Your task to perform on an android device: open app "PUBG MOBILE" (install if not already installed) Image 0: 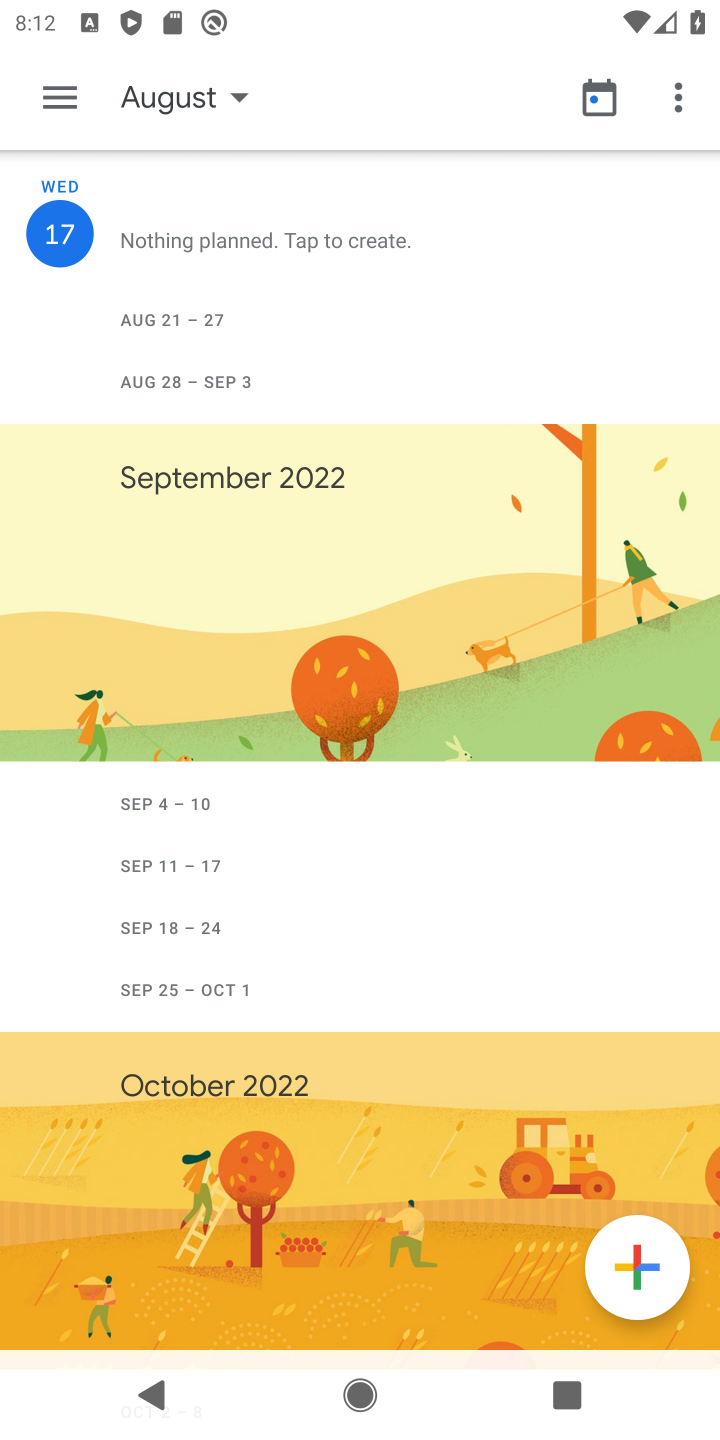
Step 0: press home button
Your task to perform on an android device: open app "PUBG MOBILE" (install if not already installed) Image 1: 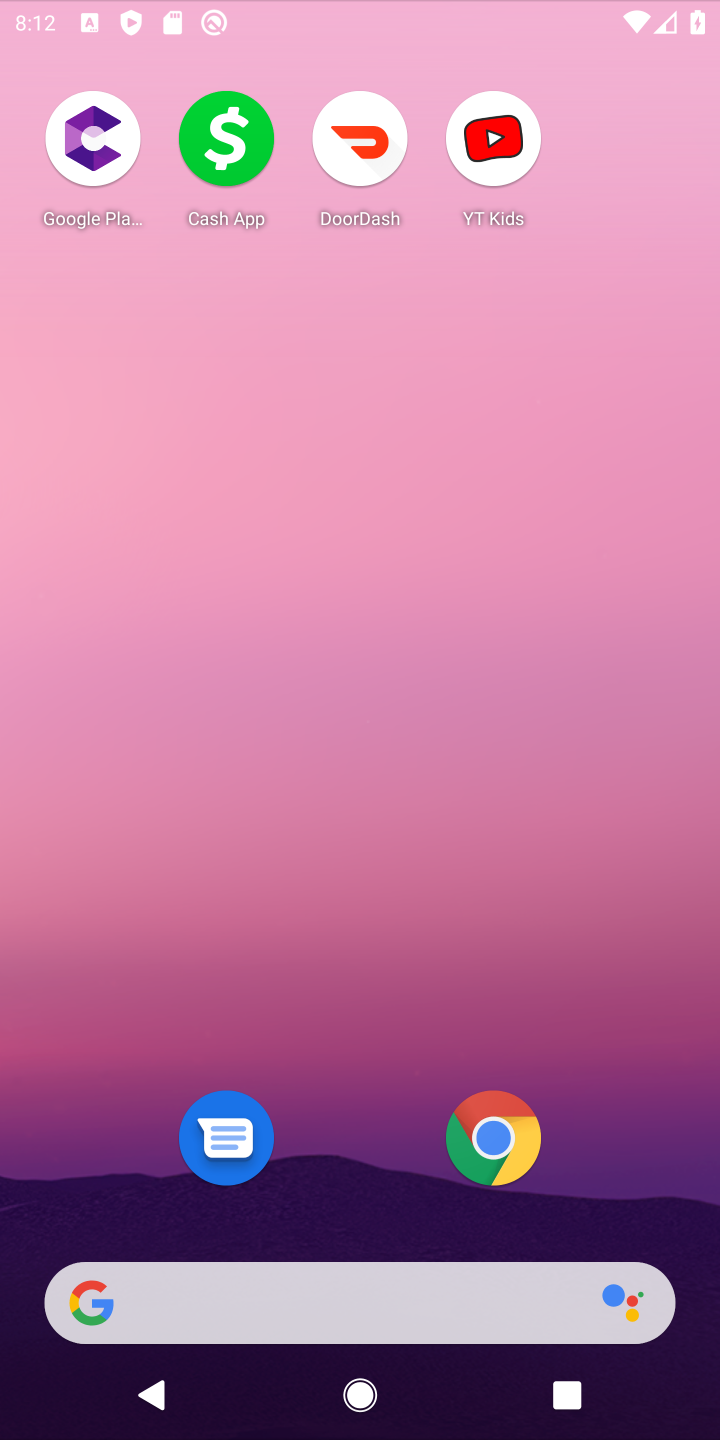
Step 1: press home button
Your task to perform on an android device: open app "PUBG MOBILE" (install if not already installed) Image 2: 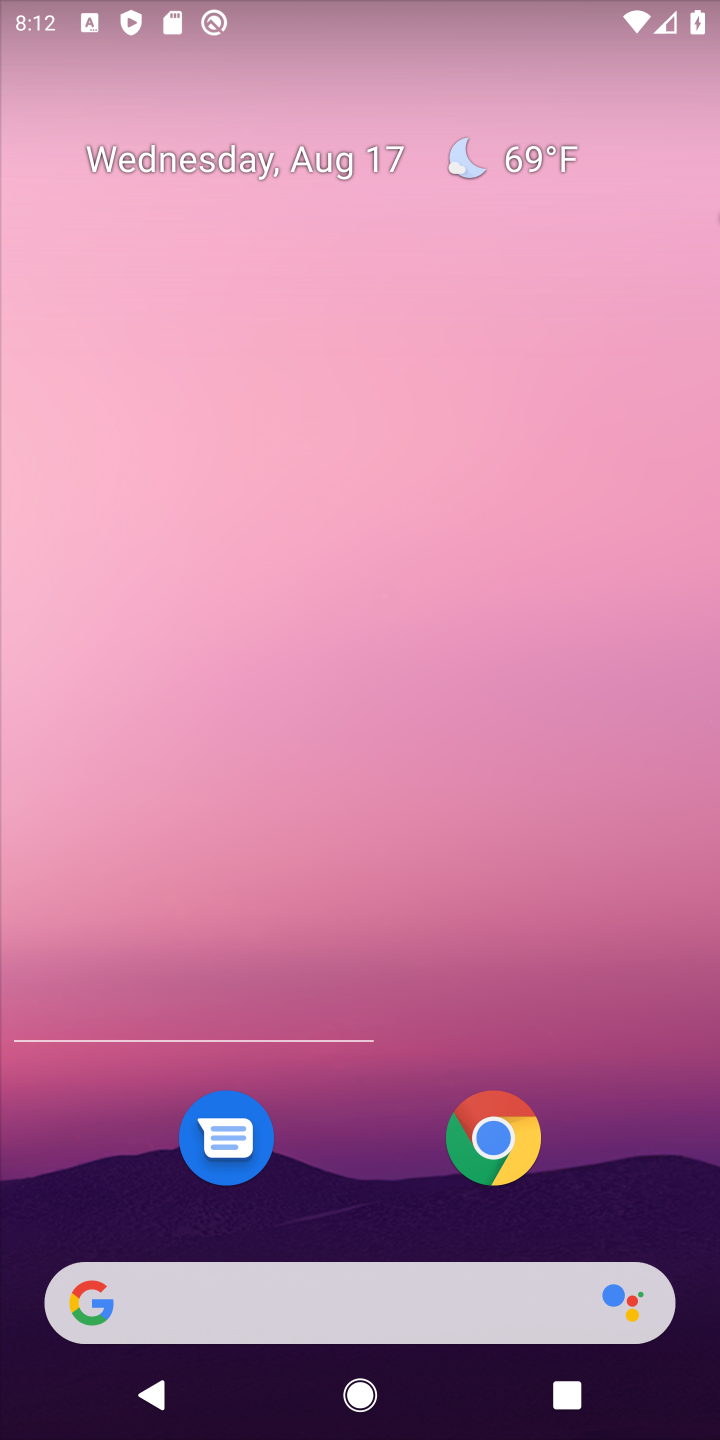
Step 2: click (327, 472)
Your task to perform on an android device: open app "PUBG MOBILE" (install if not already installed) Image 3: 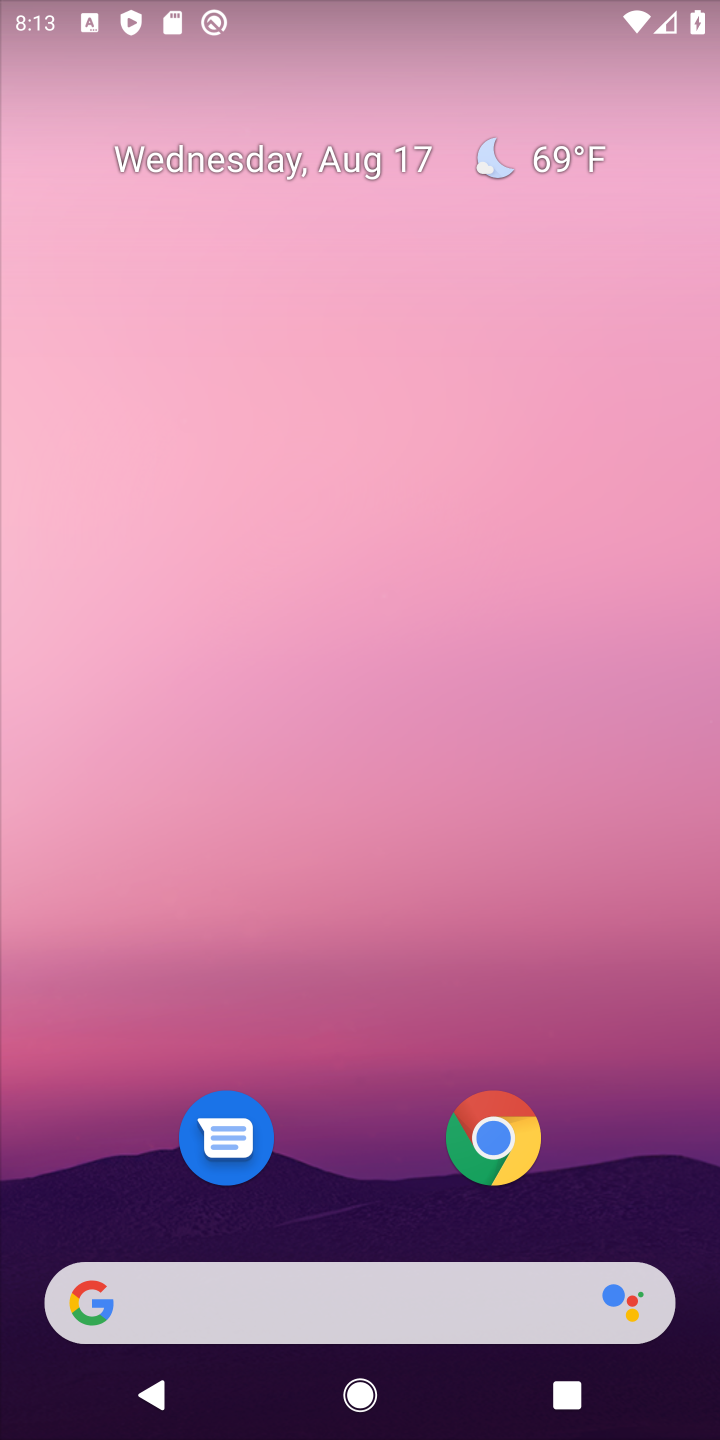
Step 3: drag from (330, 1187) to (383, 497)
Your task to perform on an android device: open app "PUBG MOBILE" (install if not already installed) Image 4: 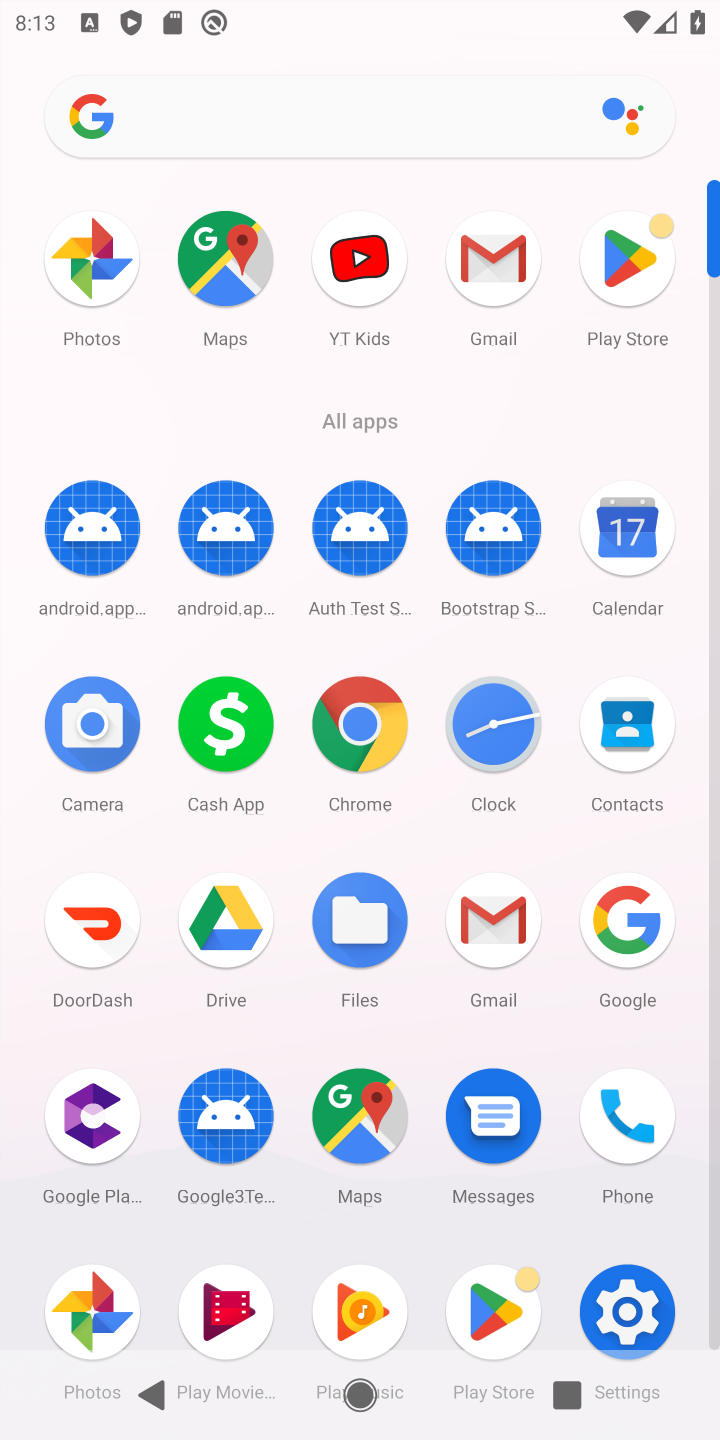
Step 4: click (651, 257)
Your task to perform on an android device: open app "PUBG MOBILE" (install if not already installed) Image 5: 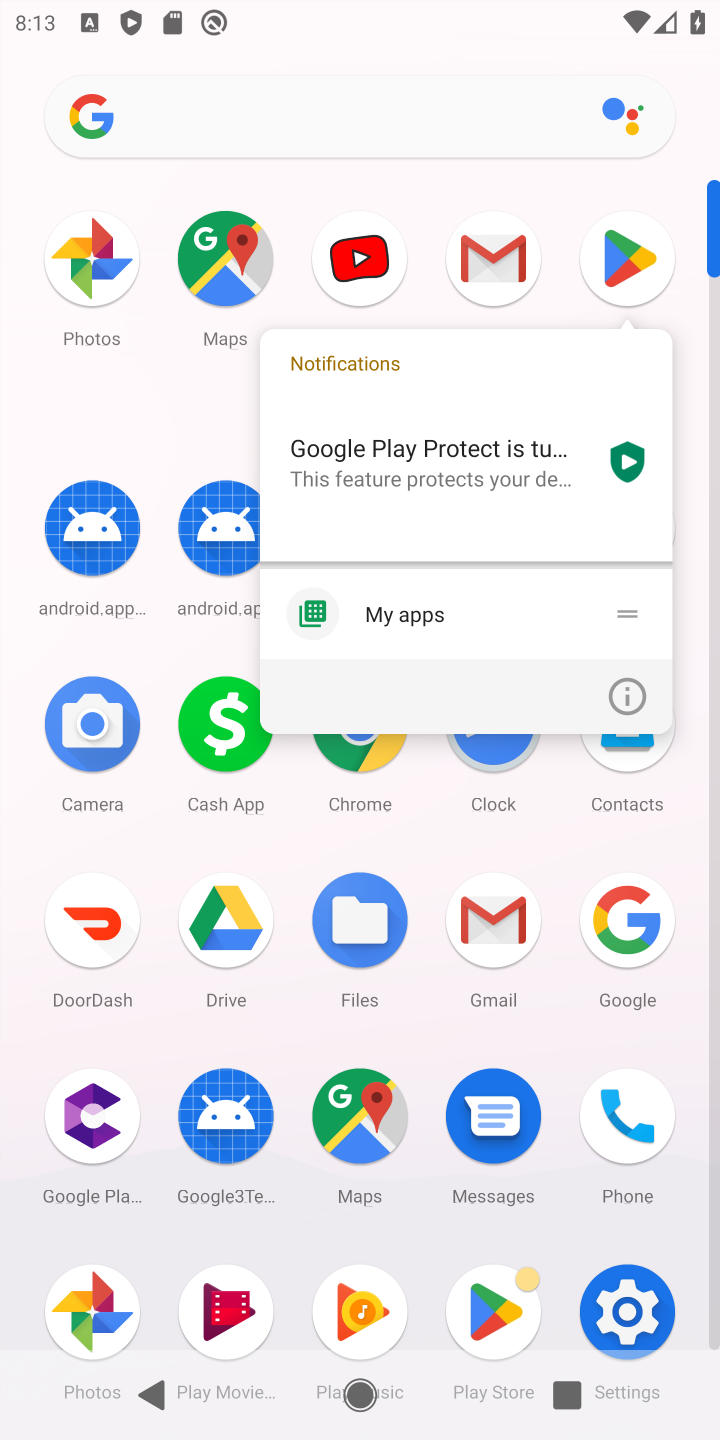
Step 5: click (595, 261)
Your task to perform on an android device: open app "PUBG MOBILE" (install if not already installed) Image 6: 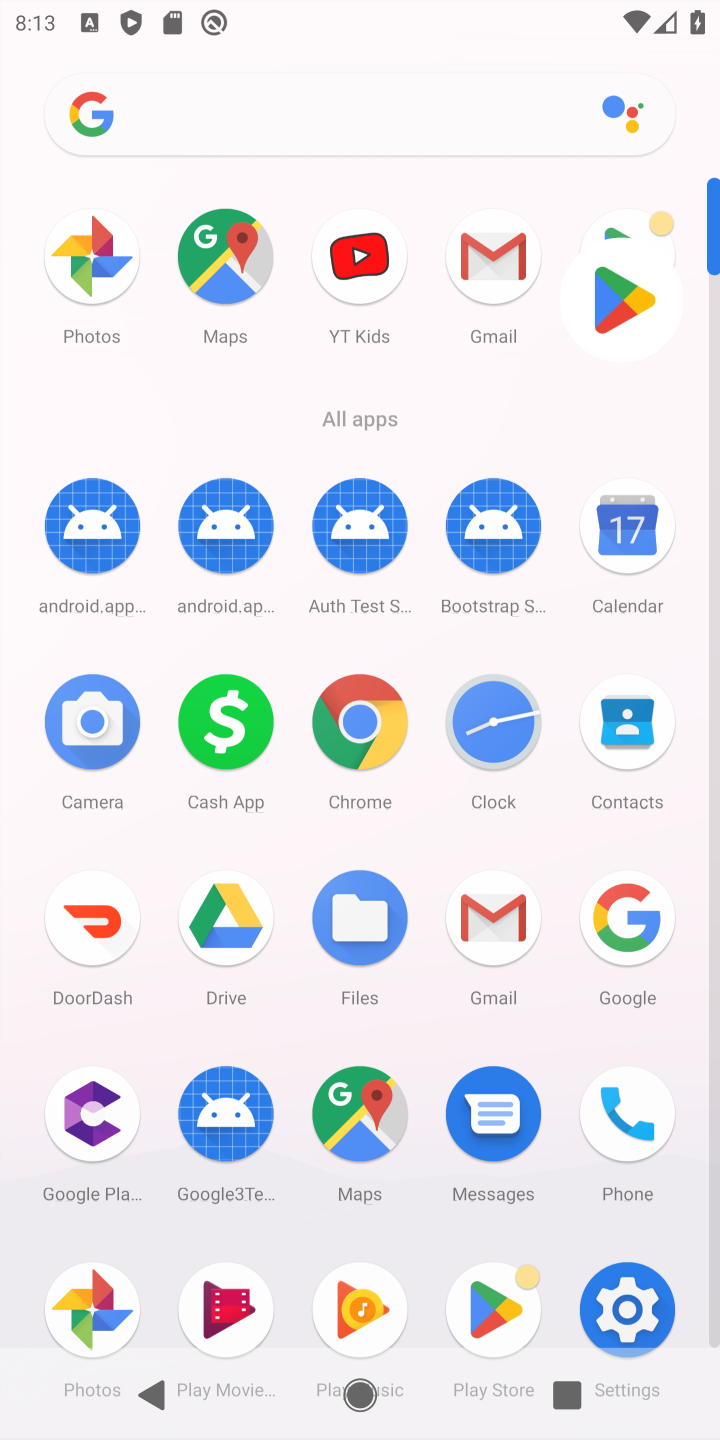
Step 6: click (595, 261)
Your task to perform on an android device: open app "PUBG MOBILE" (install if not already installed) Image 7: 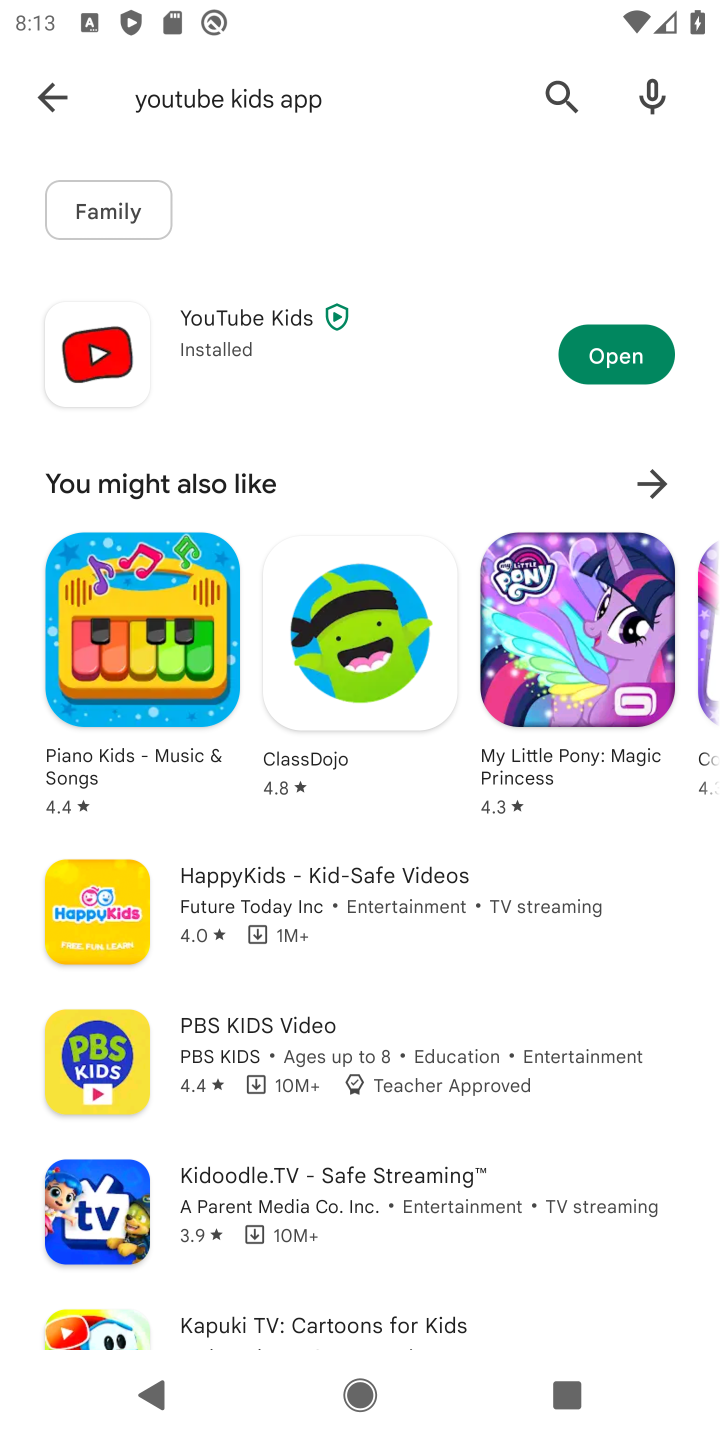
Step 7: click (25, 96)
Your task to perform on an android device: open app "PUBG MOBILE" (install if not already installed) Image 8: 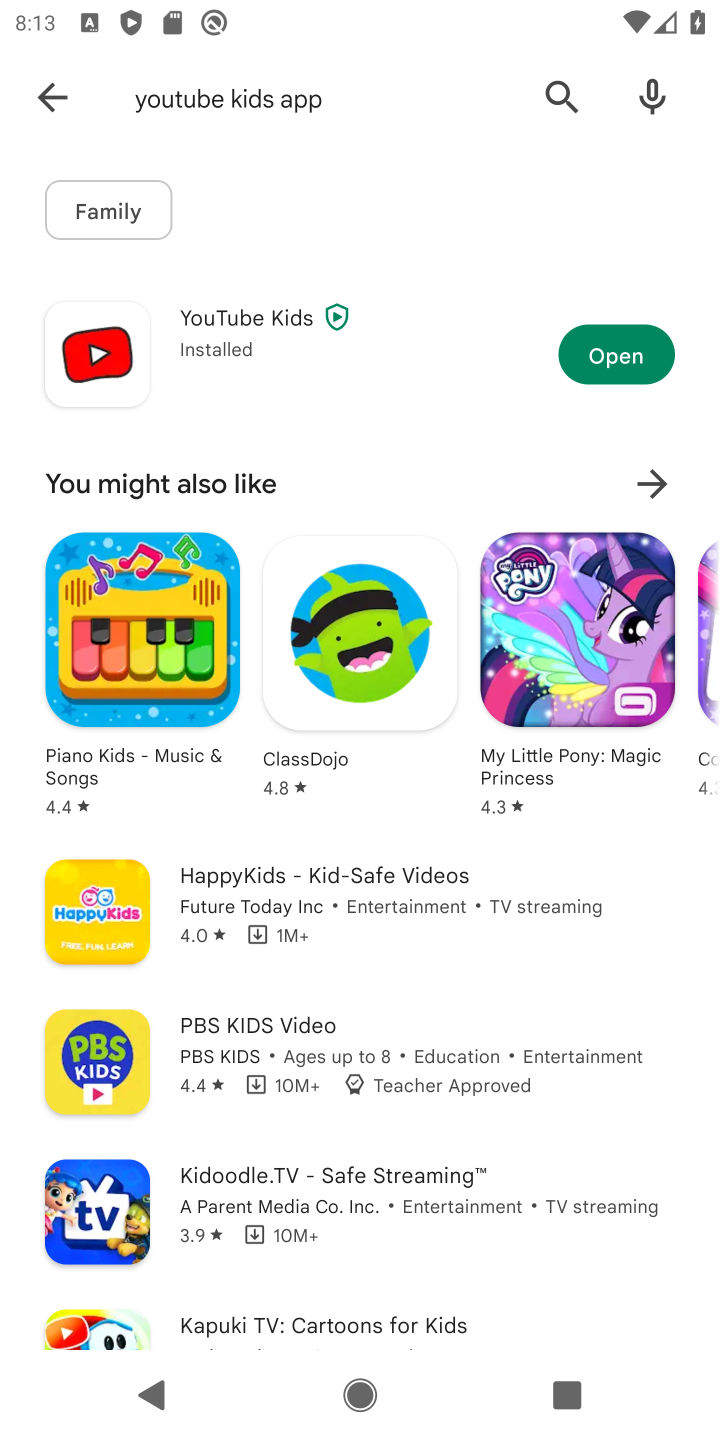
Step 8: click (65, 100)
Your task to perform on an android device: open app "PUBG MOBILE" (install if not already installed) Image 9: 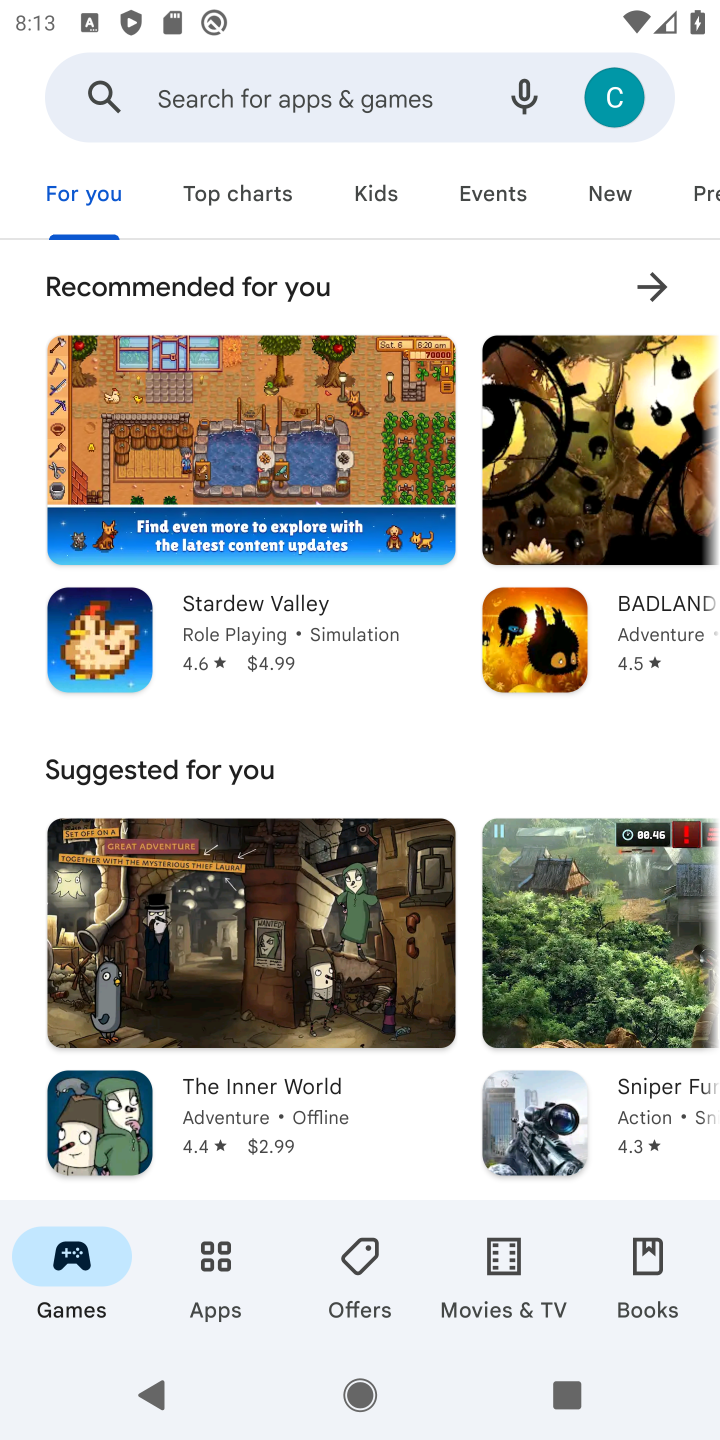
Step 9: click (290, 90)
Your task to perform on an android device: open app "PUBG MOBILE" (install if not already installed) Image 10: 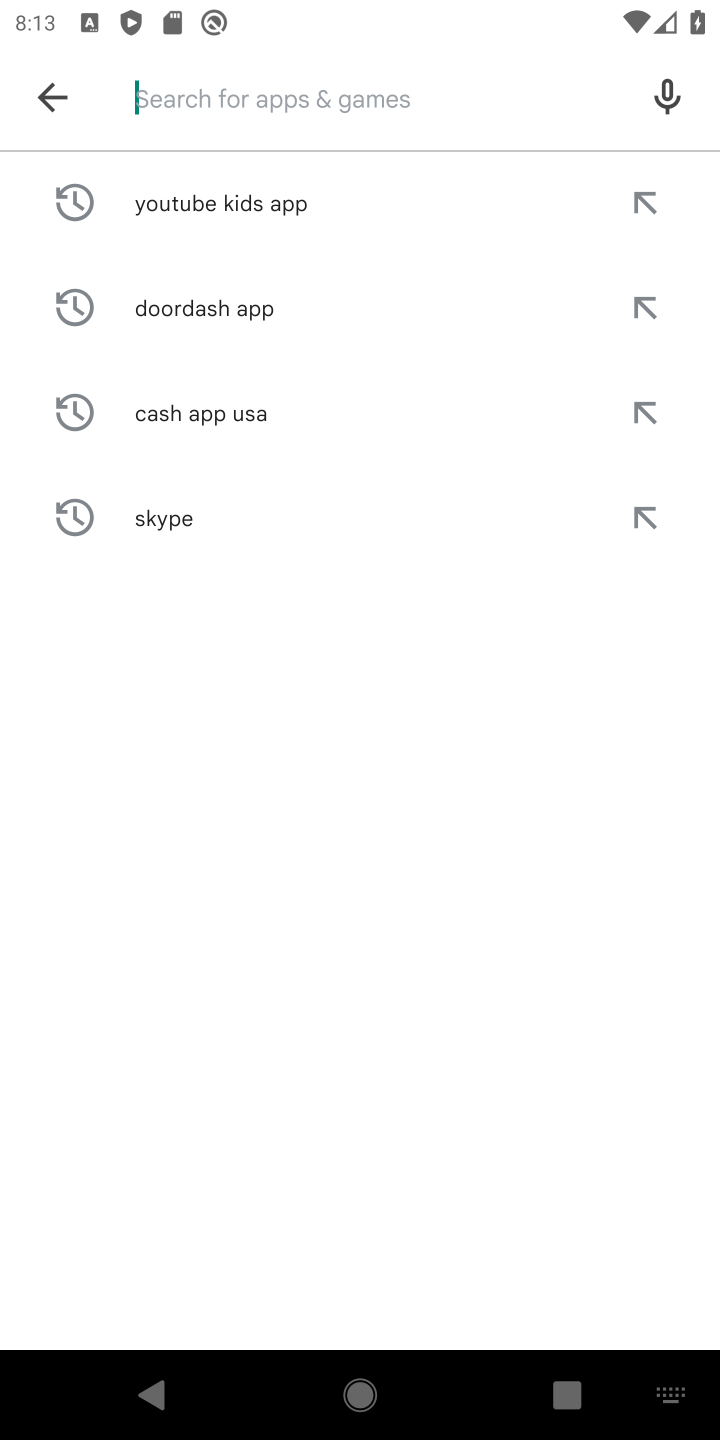
Step 10: type "PUBG MOBILE "
Your task to perform on an android device: open app "PUBG MOBILE" (install if not already installed) Image 11: 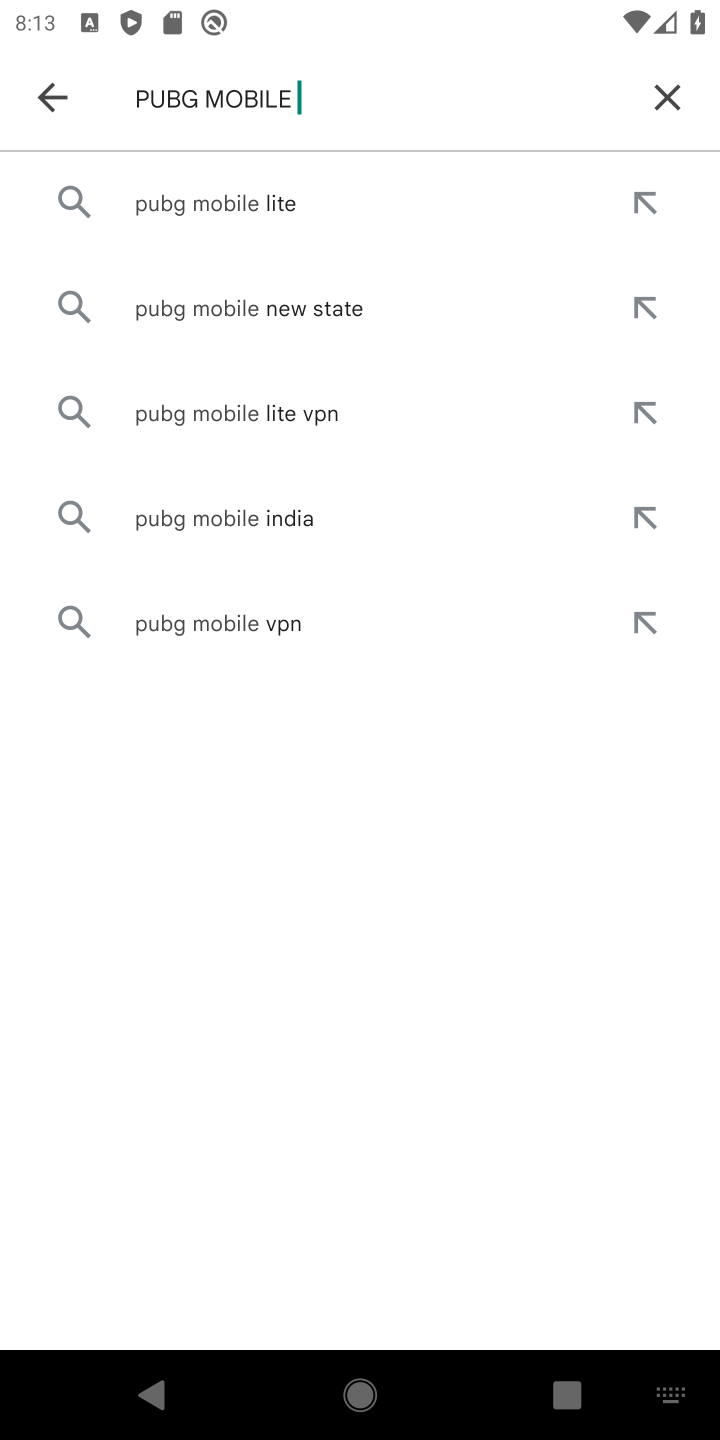
Step 11: click (236, 211)
Your task to perform on an android device: open app "PUBG MOBILE" (install if not already installed) Image 12: 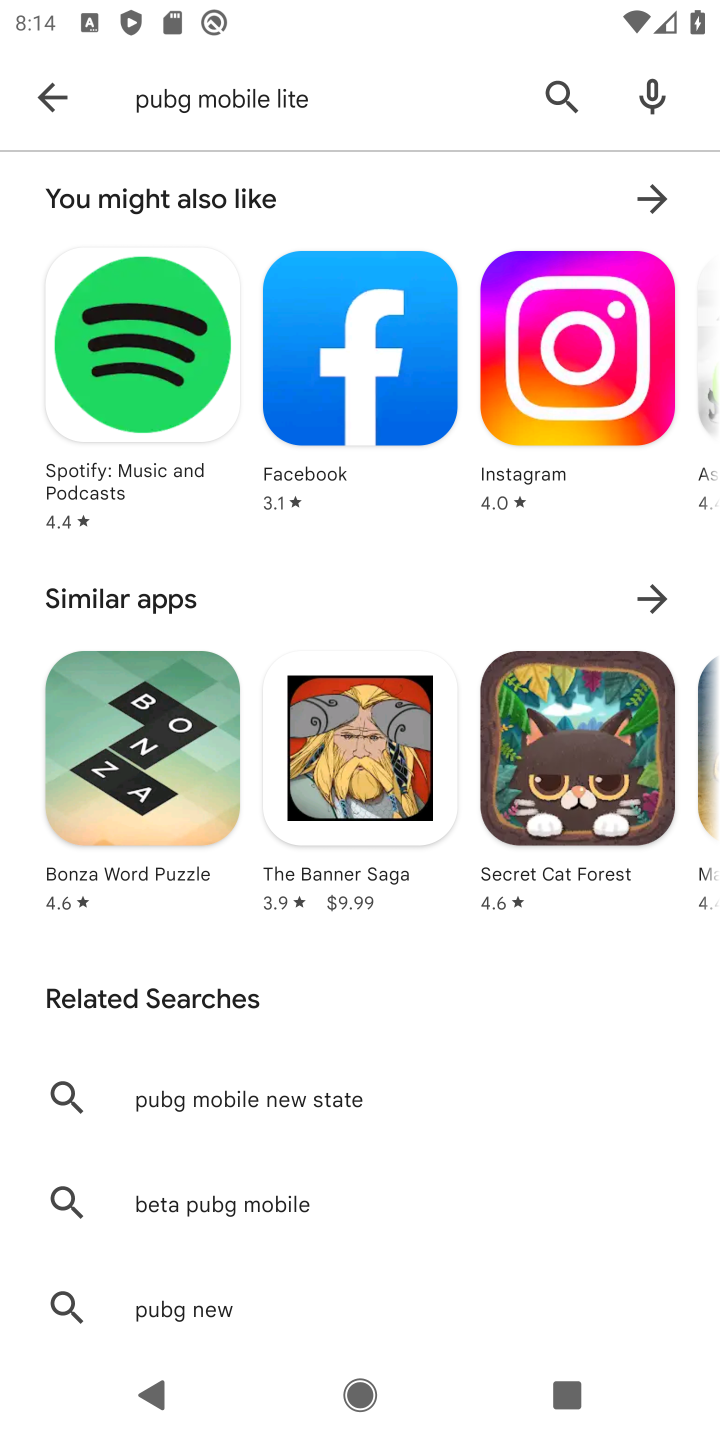
Step 12: click (205, 1276)
Your task to perform on an android device: open app "PUBG MOBILE" (install if not already installed) Image 13: 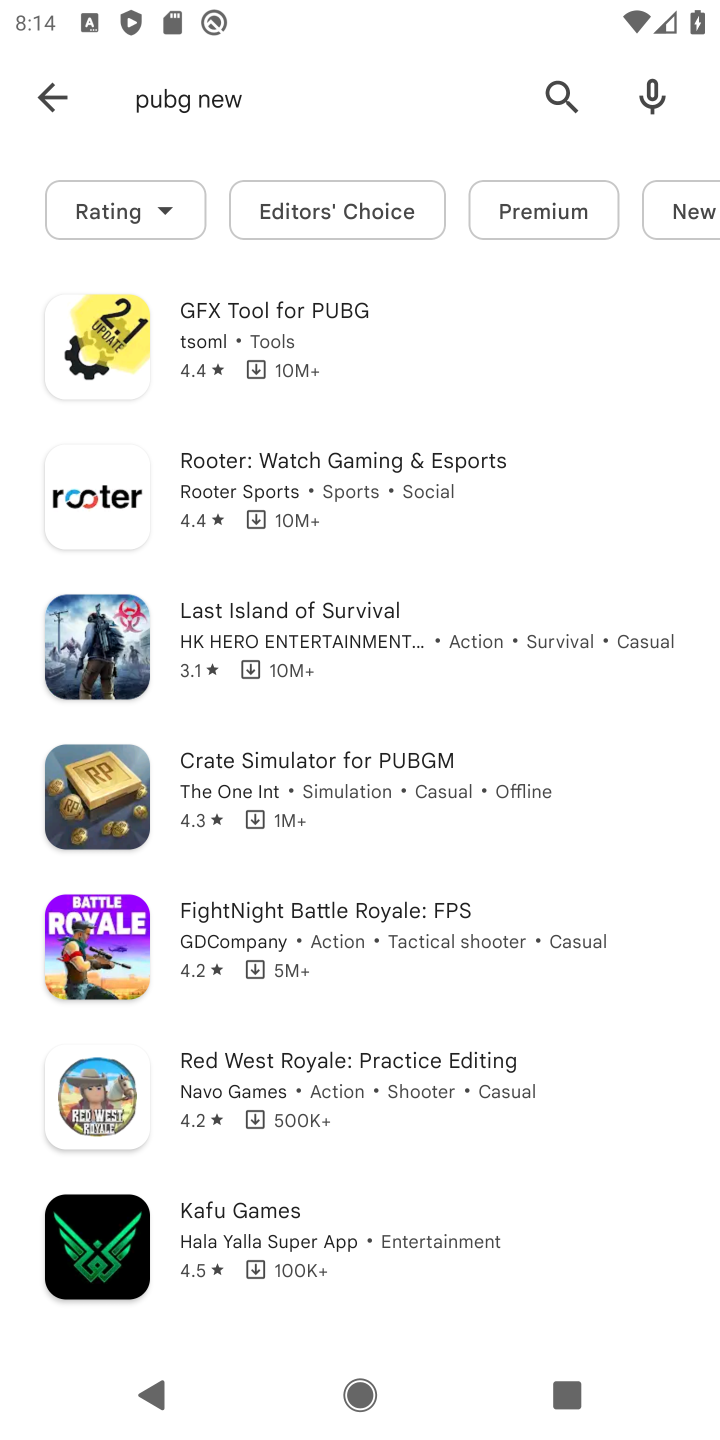
Step 13: click (39, 76)
Your task to perform on an android device: open app "PUBG MOBILE" (install if not already installed) Image 14: 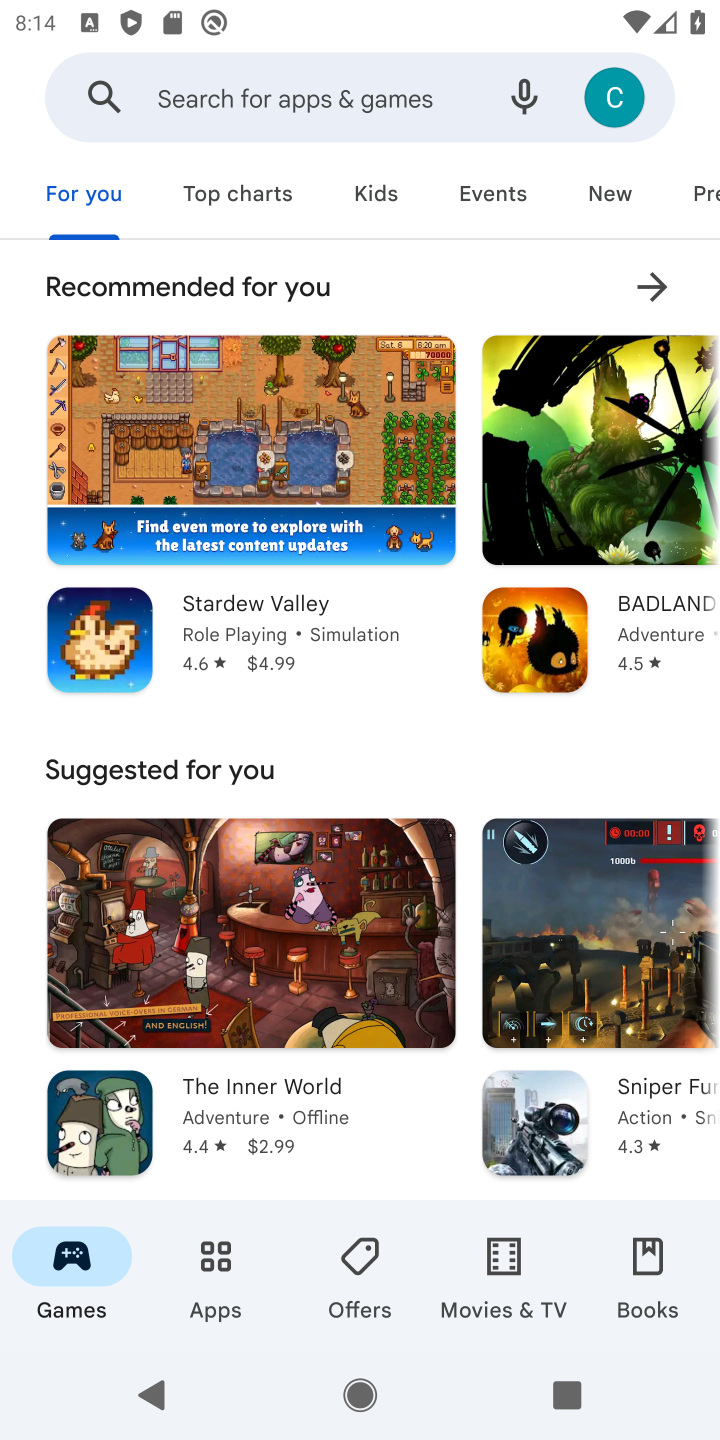
Step 14: click (446, 111)
Your task to perform on an android device: open app "PUBG MOBILE" (install if not already installed) Image 15: 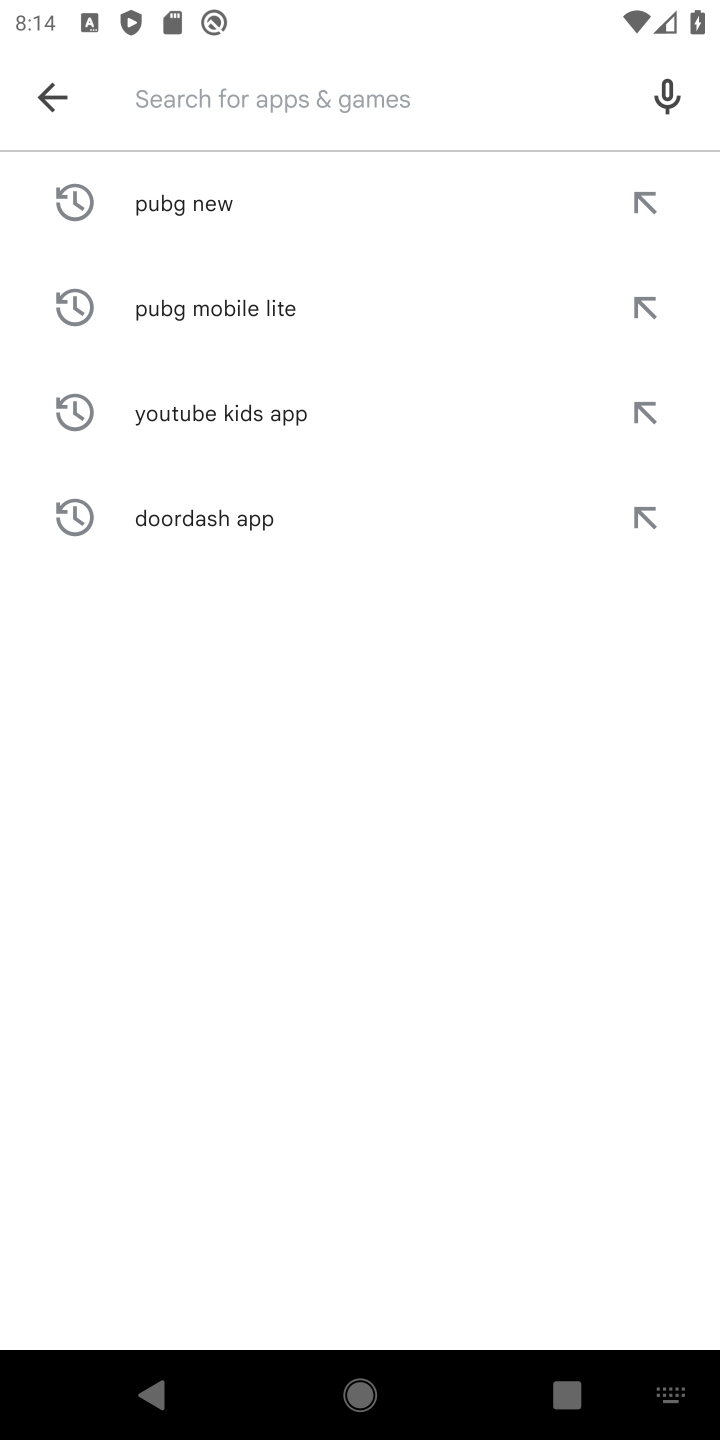
Step 15: click (242, 327)
Your task to perform on an android device: open app "PUBG MOBILE" (install if not already installed) Image 16: 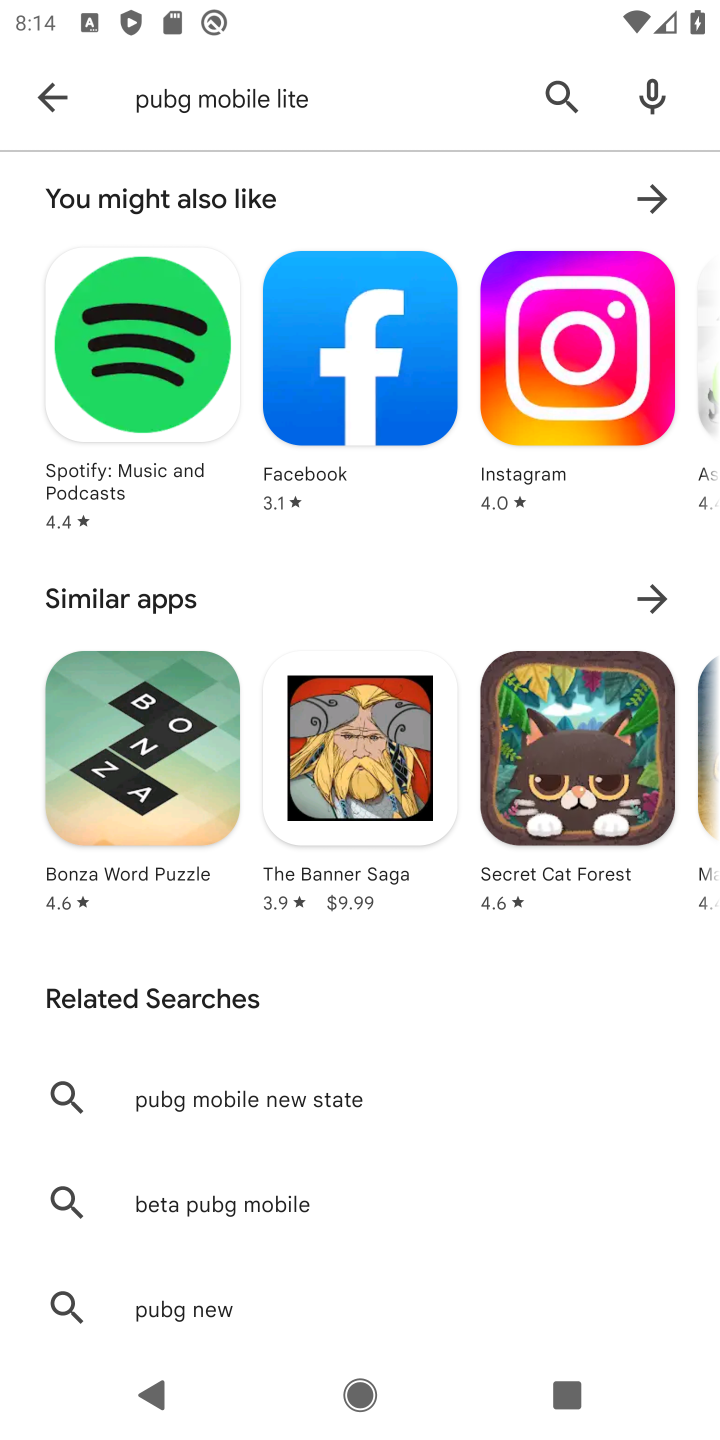
Step 16: click (312, 1084)
Your task to perform on an android device: open app "PUBG MOBILE" (install if not already installed) Image 17: 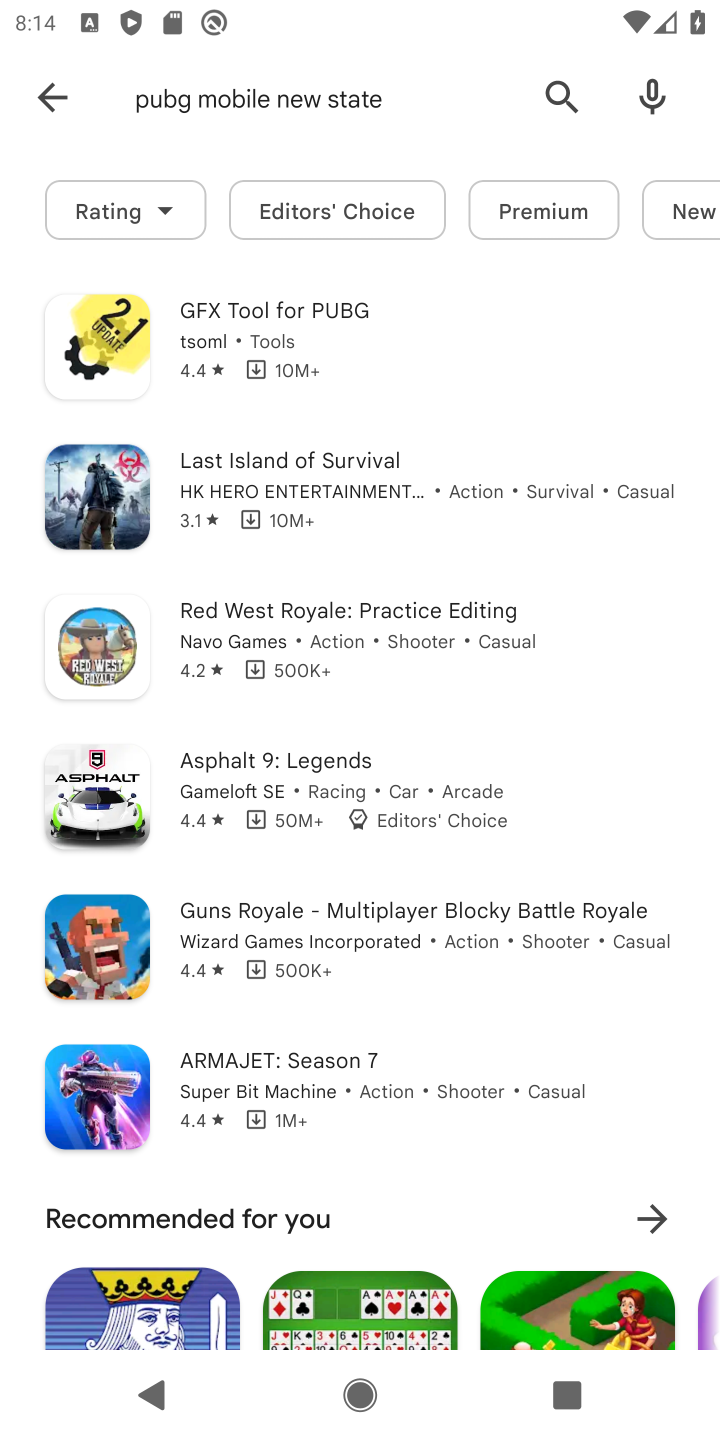
Step 17: task complete